Your task to perform on an android device: Show me popular games on the Play Store Image 0: 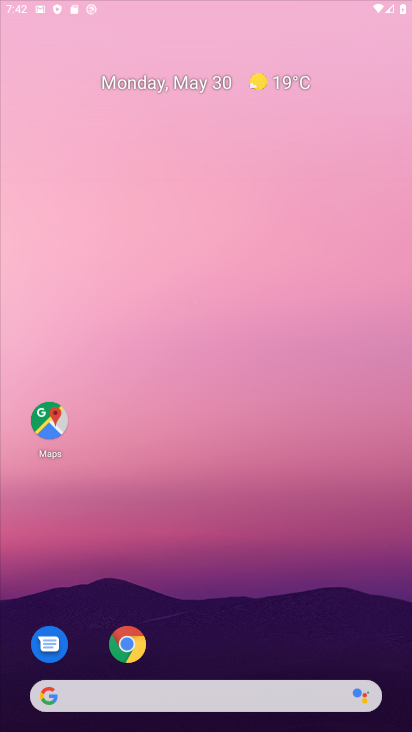
Step 0: drag from (276, 2) to (202, 13)
Your task to perform on an android device: Show me popular games on the Play Store Image 1: 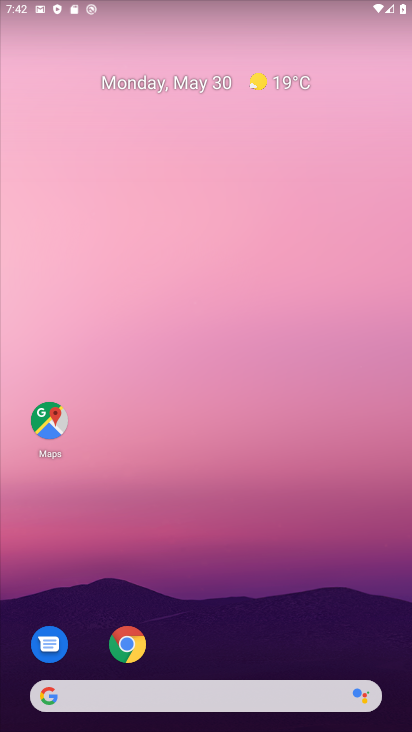
Step 1: drag from (191, 653) to (261, 86)
Your task to perform on an android device: Show me popular games on the Play Store Image 2: 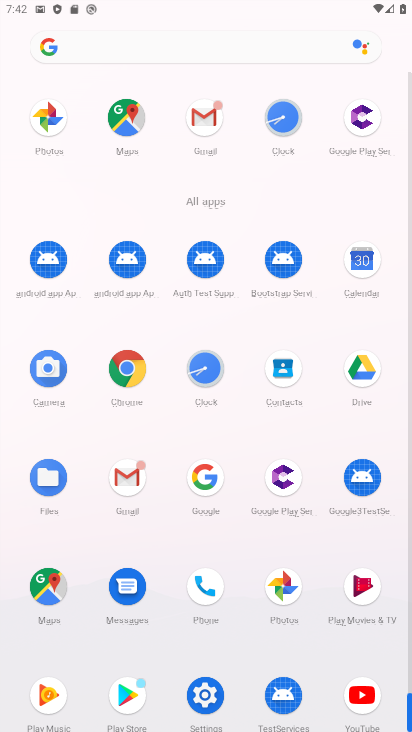
Step 2: click (136, 684)
Your task to perform on an android device: Show me popular games on the Play Store Image 3: 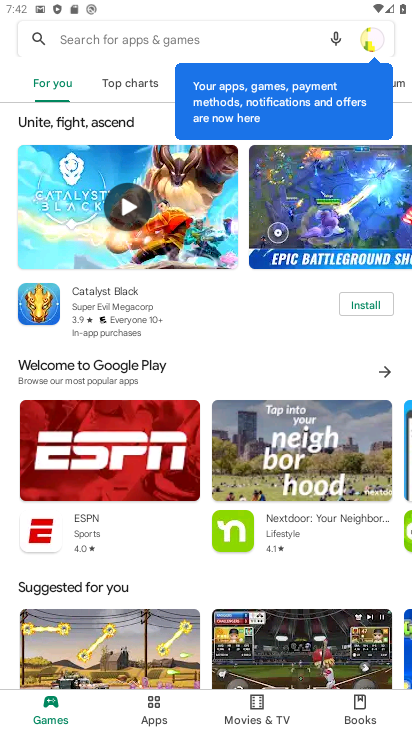
Step 3: drag from (205, 547) to (205, 209)
Your task to perform on an android device: Show me popular games on the Play Store Image 4: 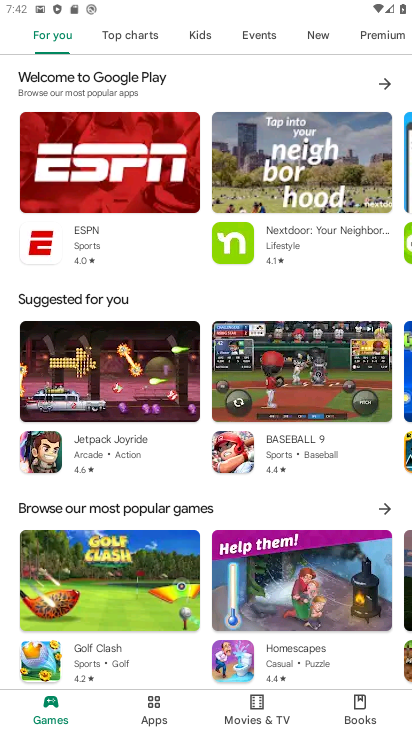
Step 4: drag from (196, 528) to (198, 100)
Your task to perform on an android device: Show me popular games on the Play Store Image 5: 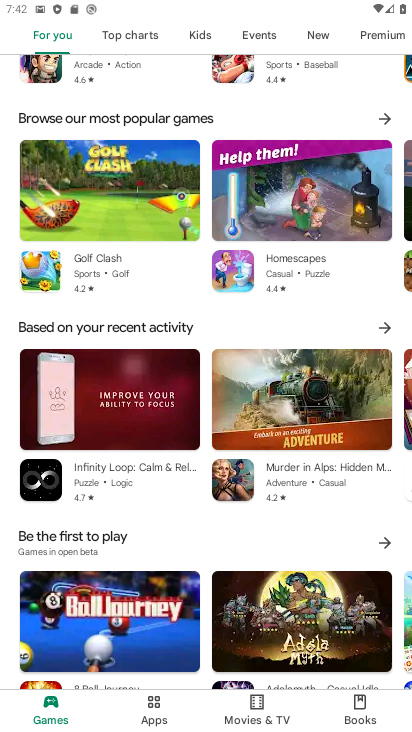
Step 5: drag from (198, 518) to (239, 126)
Your task to perform on an android device: Show me popular games on the Play Store Image 6: 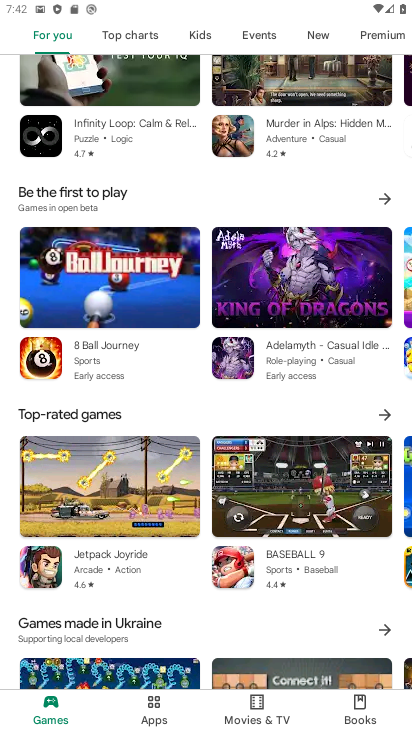
Step 6: drag from (196, 146) to (233, 484)
Your task to perform on an android device: Show me popular games on the Play Store Image 7: 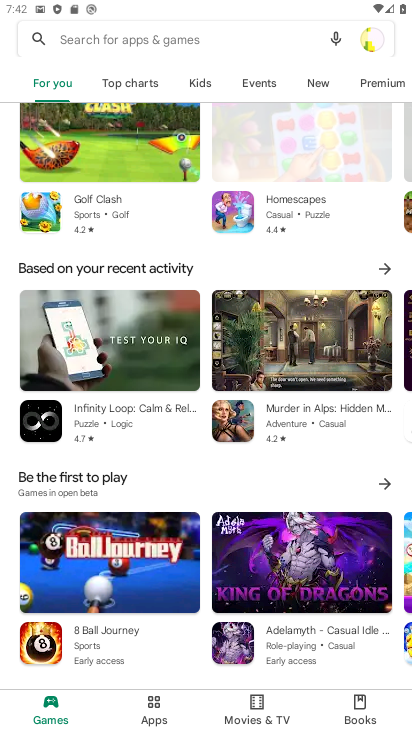
Step 7: click (152, 710)
Your task to perform on an android device: Show me popular games on the Play Store Image 8: 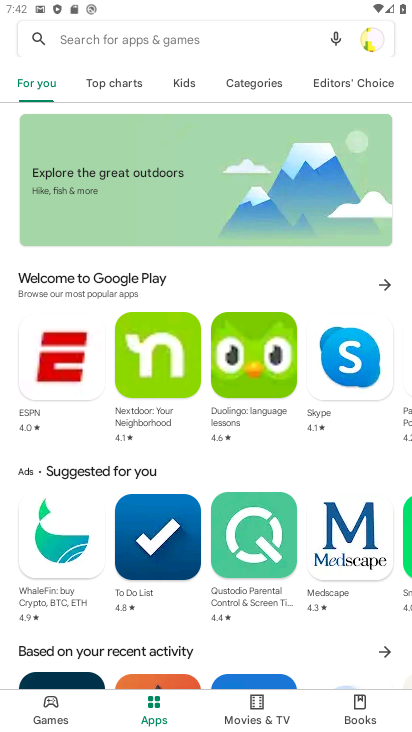
Step 8: drag from (218, 567) to (287, 310)
Your task to perform on an android device: Show me popular games on the Play Store Image 9: 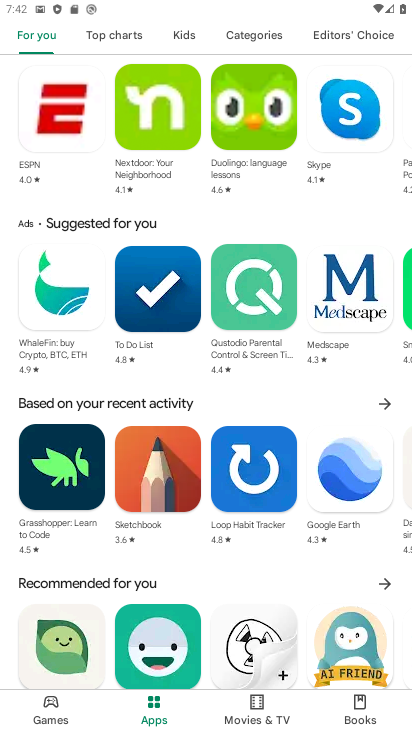
Step 9: click (52, 712)
Your task to perform on an android device: Show me popular games on the Play Store Image 10: 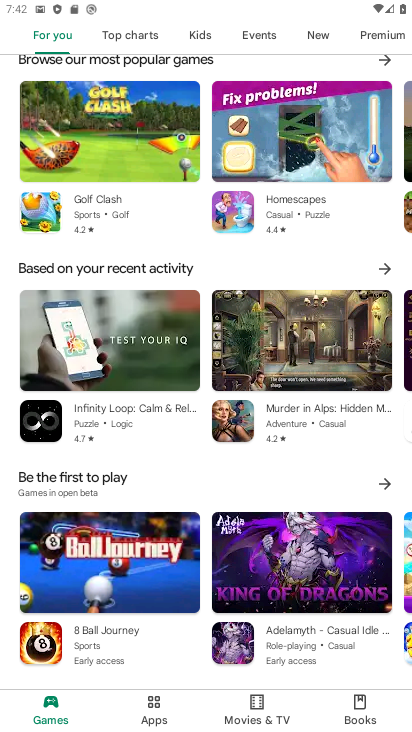
Step 10: drag from (227, 514) to (327, 116)
Your task to perform on an android device: Show me popular games on the Play Store Image 11: 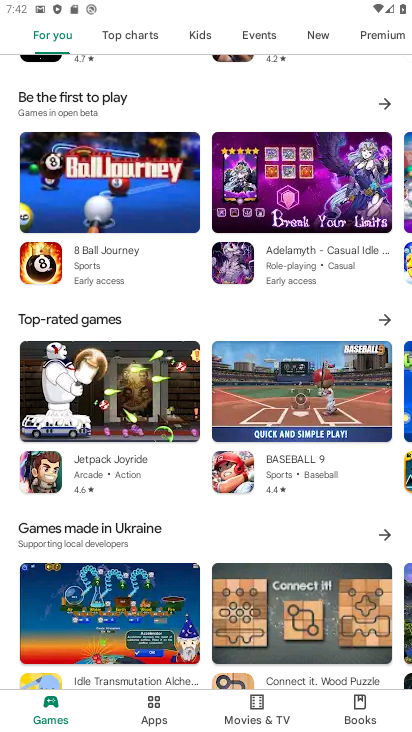
Step 11: drag from (222, 522) to (246, 114)
Your task to perform on an android device: Show me popular games on the Play Store Image 12: 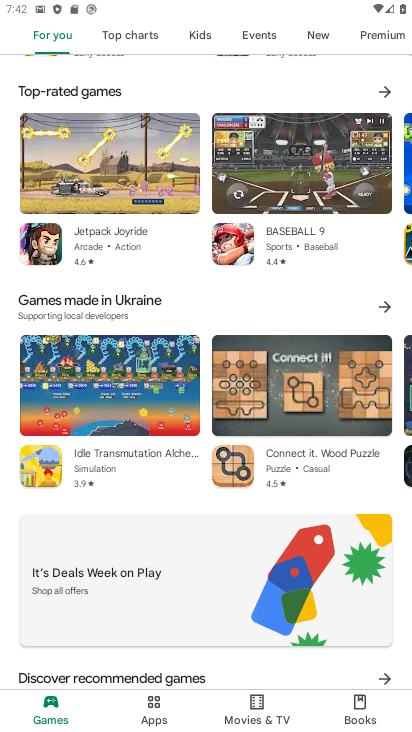
Step 12: drag from (211, 271) to (260, 723)
Your task to perform on an android device: Show me popular games on the Play Store Image 13: 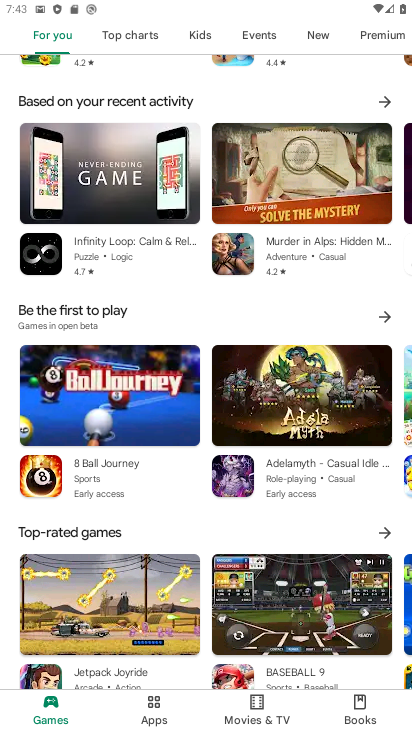
Step 13: drag from (206, 308) to (250, 726)
Your task to perform on an android device: Show me popular games on the Play Store Image 14: 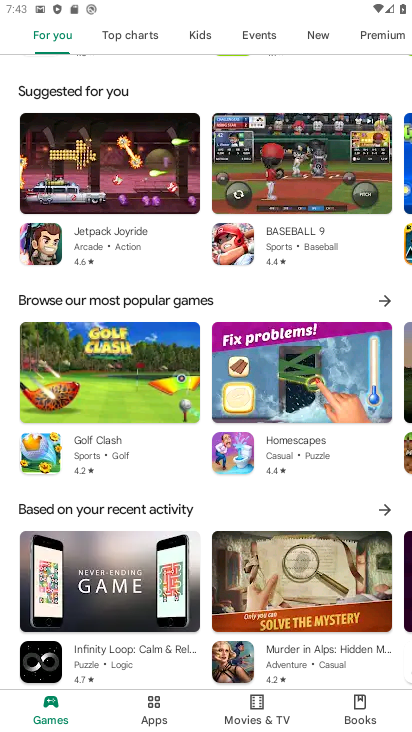
Step 14: click (387, 301)
Your task to perform on an android device: Show me popular games on the Play Store Image 15: 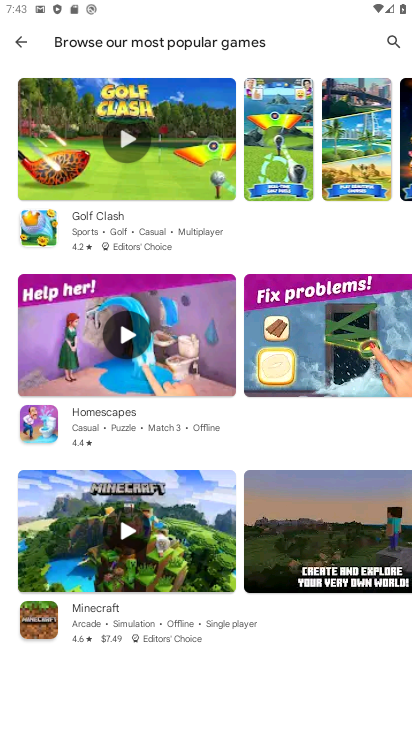
Step 15: task complete